Your task to perform on an android device: turn pop-ups on in chrome Image 0: 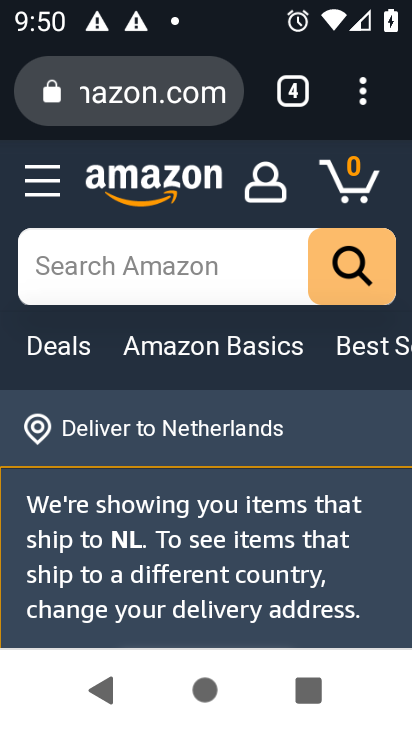
Step 0: click (370, 85)
Your task to perform on an android device: turn pop-ups on in chrome Image 1: 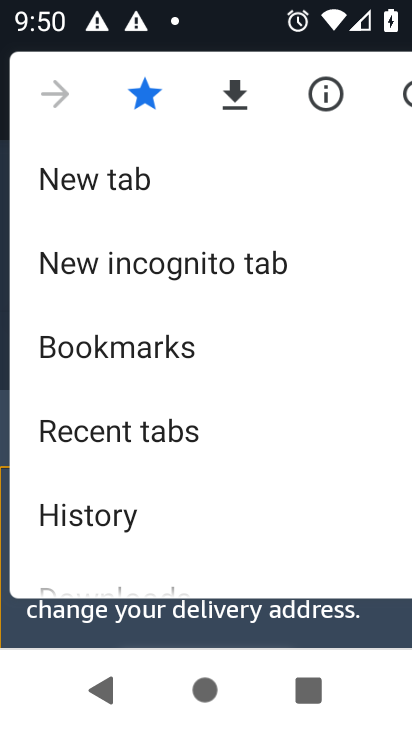
Step 1: drag from (250, 523) to (250, 246)
Your task to perform on an android device: turn pop-ups on in chrome Image 2: 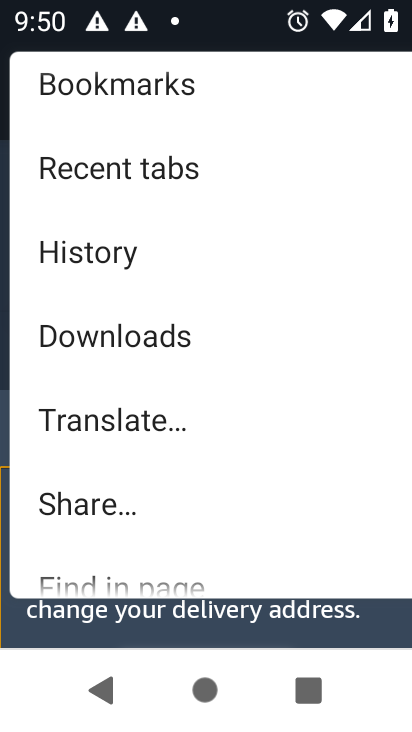
Step 2: drag from (193, 482) to (148, 199)
Your task to perform on an android device: turn pop-ups on in chrome Image 3: 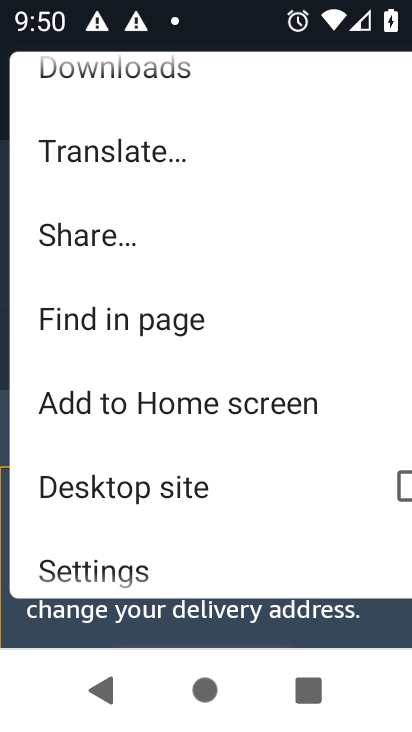
Step 3: click (148, 563)
Your task to perform on an android device: turn pop-ups on in chrome Image 4: 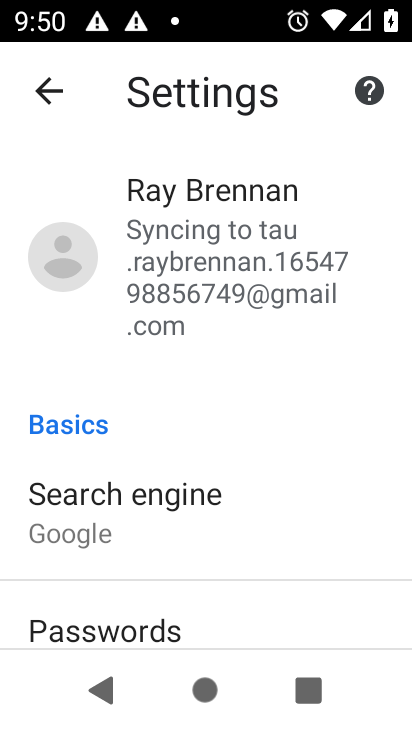
Step 4: drag from (225, 487) to (225, 229)
Your task to perform on an android device: turn pop-ups on in chrome Image 5: 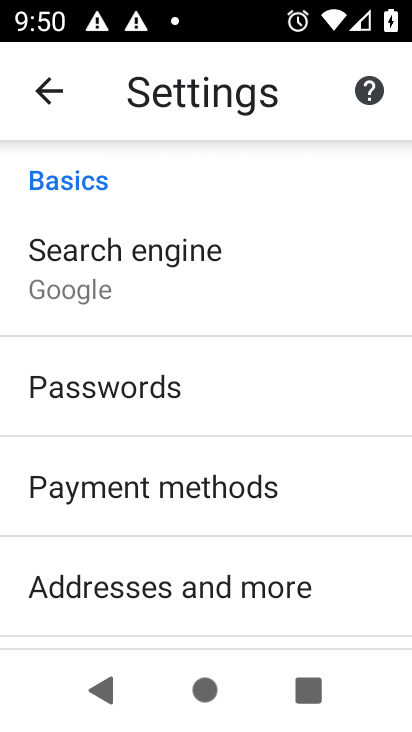
Step 5: drag from (260, 576) to (269, 286)
Your task to perform on an android device: turn pop-ups on in chrome Image 6: 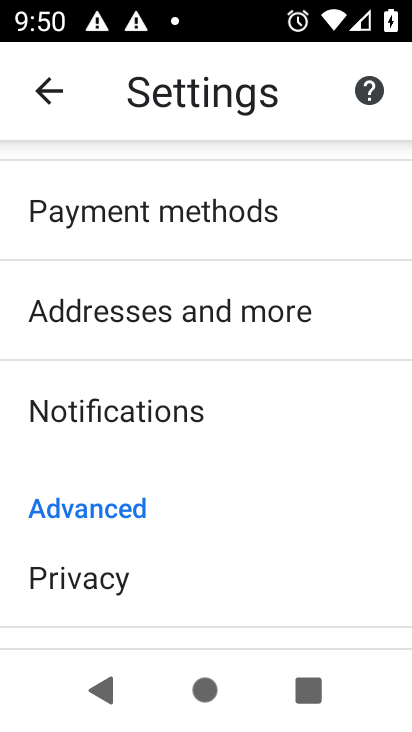
Step 6: drag from (253, 542) to (261, 272)
Your task to perform on an android device: turn pop-ups on in chrome Image 7: 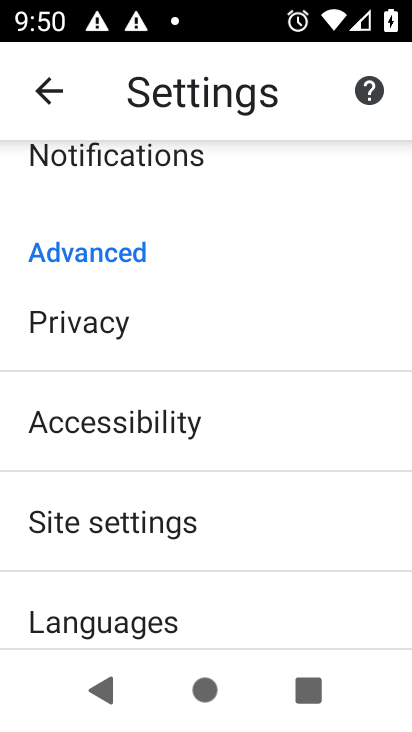
Step 7: click (202, 537)
Your task to perform on an android device: turn pop-ups on in chrome Image 8: 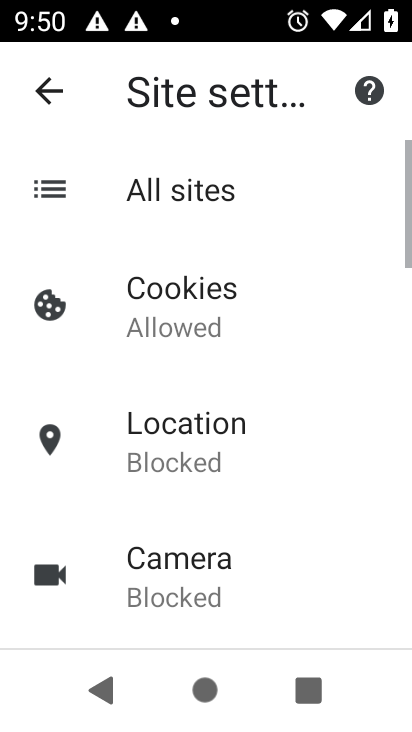
Step 8: drag from (244, 533) to (258, 276)
Your task to perform on an android device: turn pop-ups on in chrome Image 9: 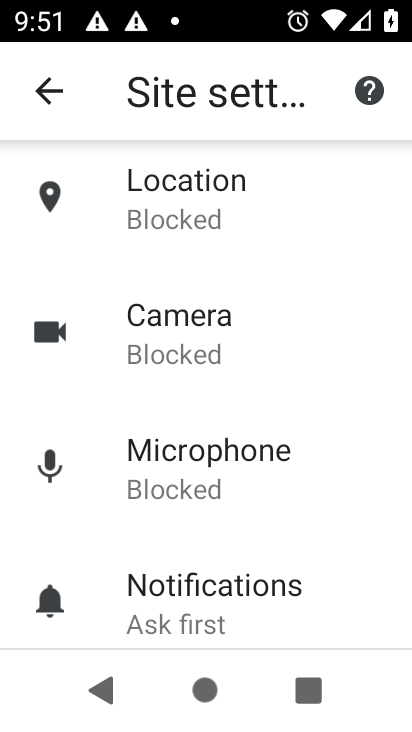
Step 9: drag from (256, 571) to (256, 240)
Your task to perform on an android device: turn pop-ups on in chrome Image 10: 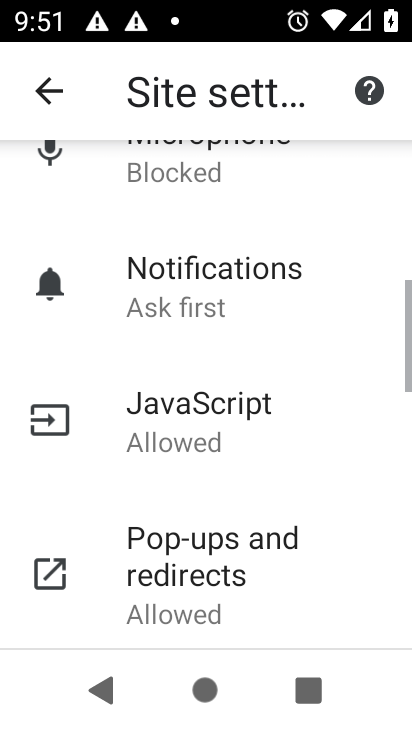
Step 10: click (249, 577)
Your task to perform on an android device: turn pop-ups on in chrome Image 11: 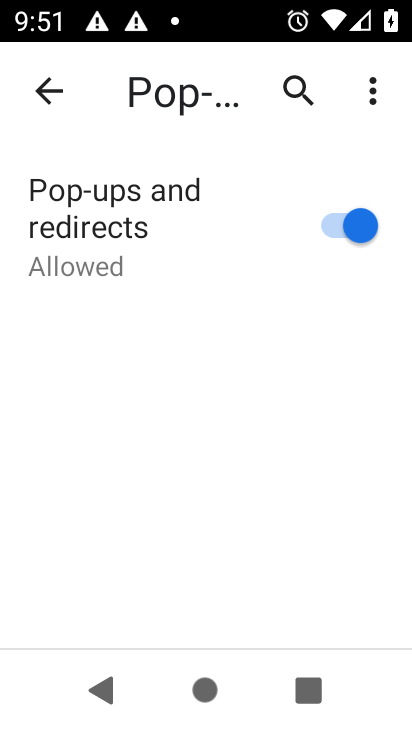
Step 11: task complete